Your task to perform on an android device: Go to internet settings Image 0: 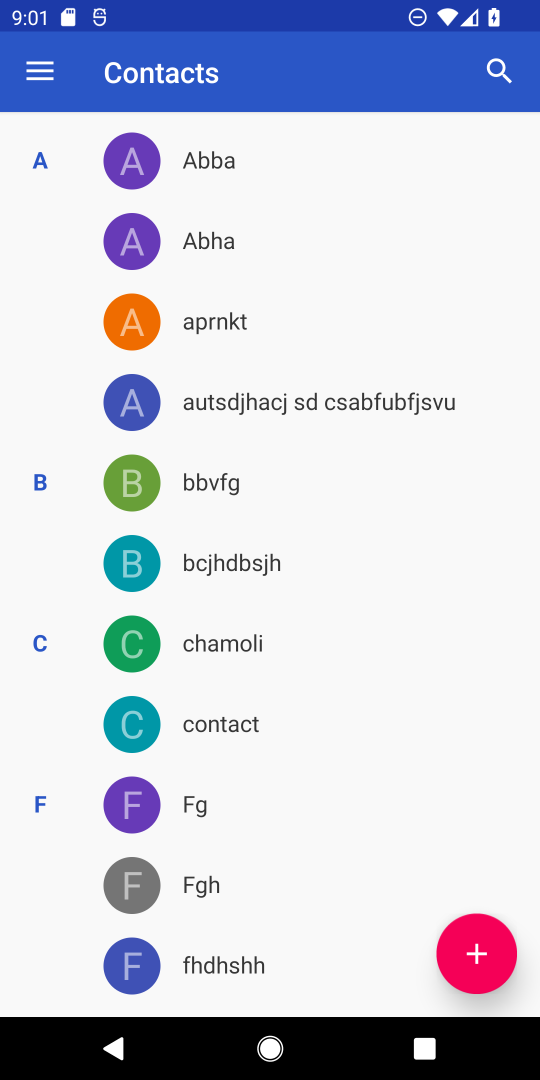
Step 0: press home button
Your task to perform on an android device: Go to internet settings Image 1: 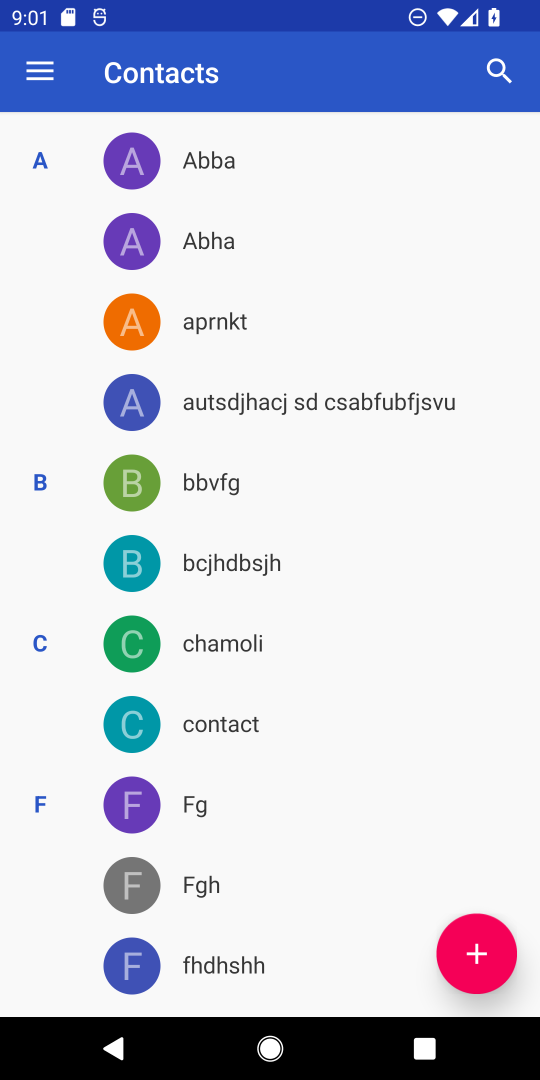
Step 1: press home button
Your task to perform on an android device: Go to internet settings Image 2: 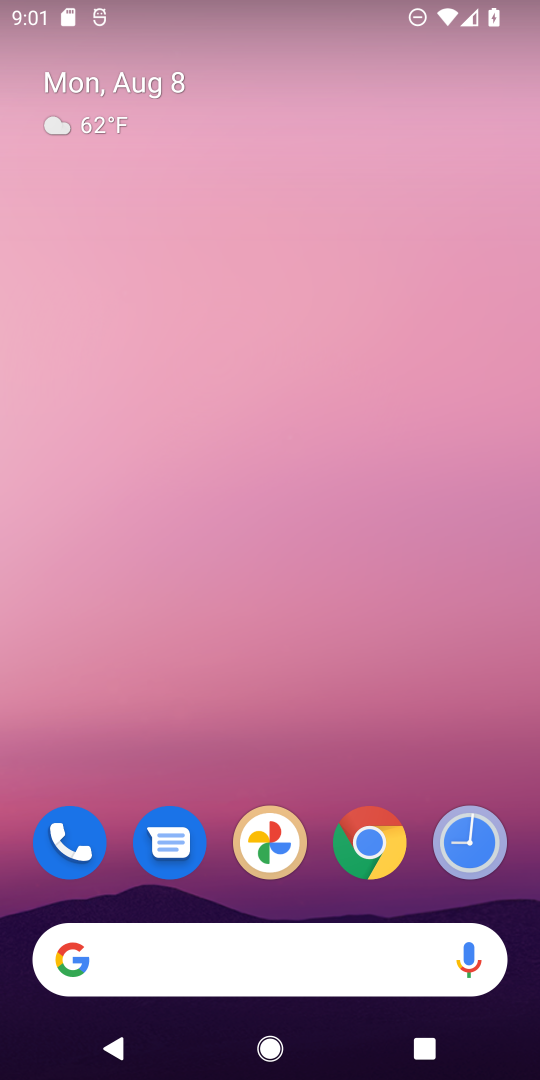
Step 2: drag from (288, 750) to (351, 0)
Your task to perform on an android device: Go to internet settings Image 3: 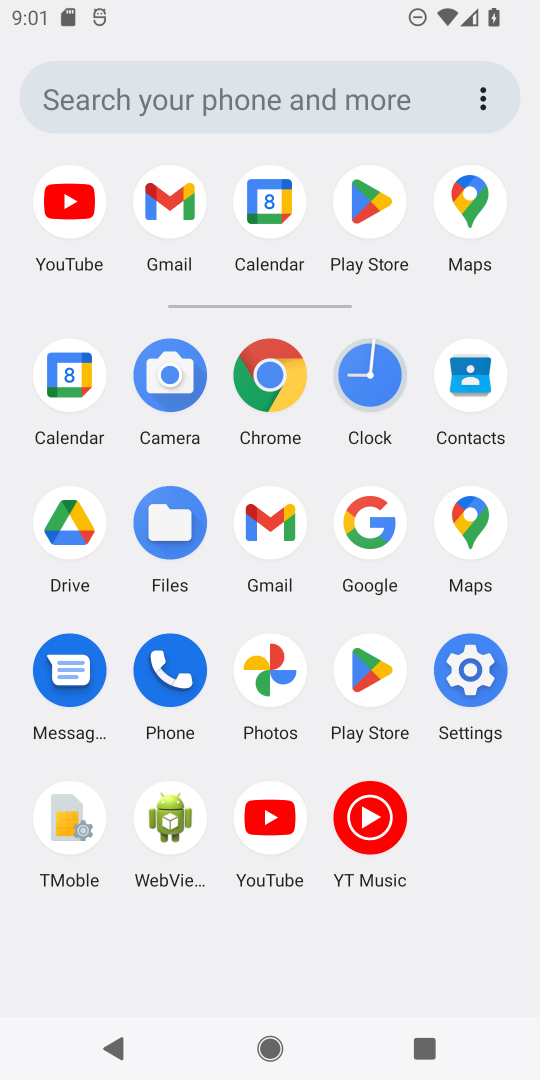
Step 3: click (464, 669)
Your task to perform on an android device: Go to internet settings Image 4: 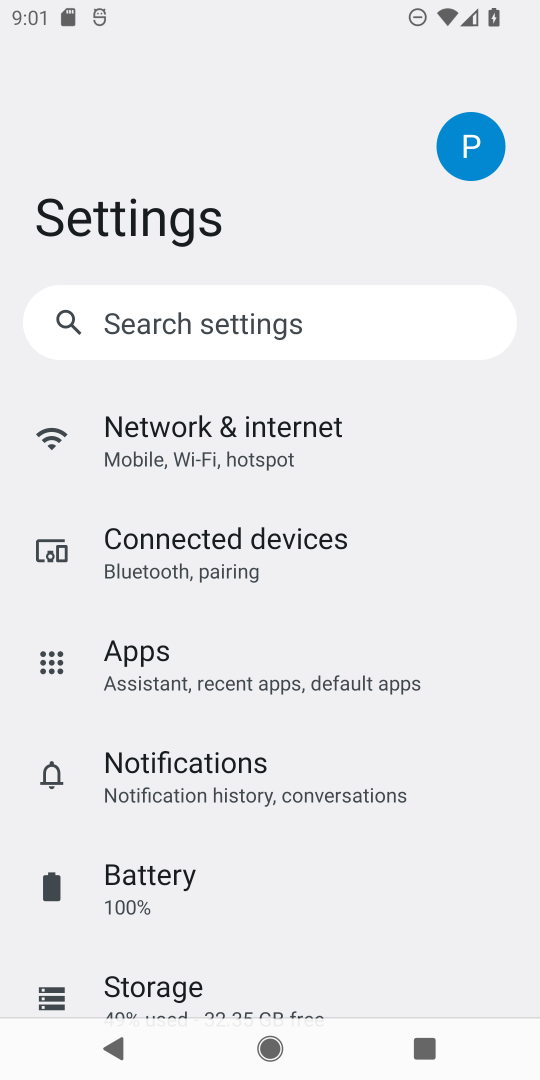
Step 4: click (284, 447)
Your task to perform on an android device: Go to internet settings Image 5: 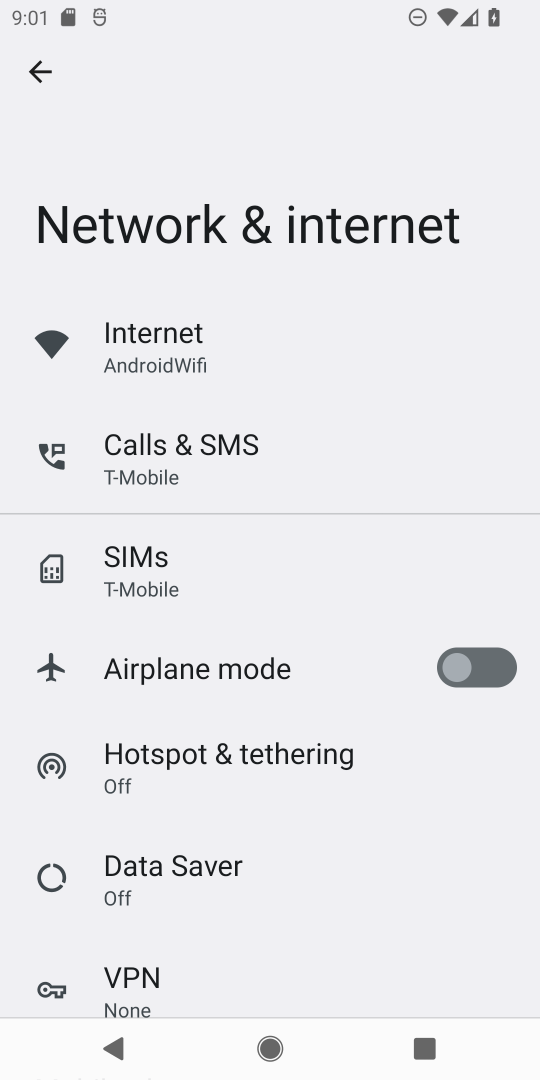
Step 5: click (198, 356)
Your task to perform on an android device: Go to internet settings Image 6: 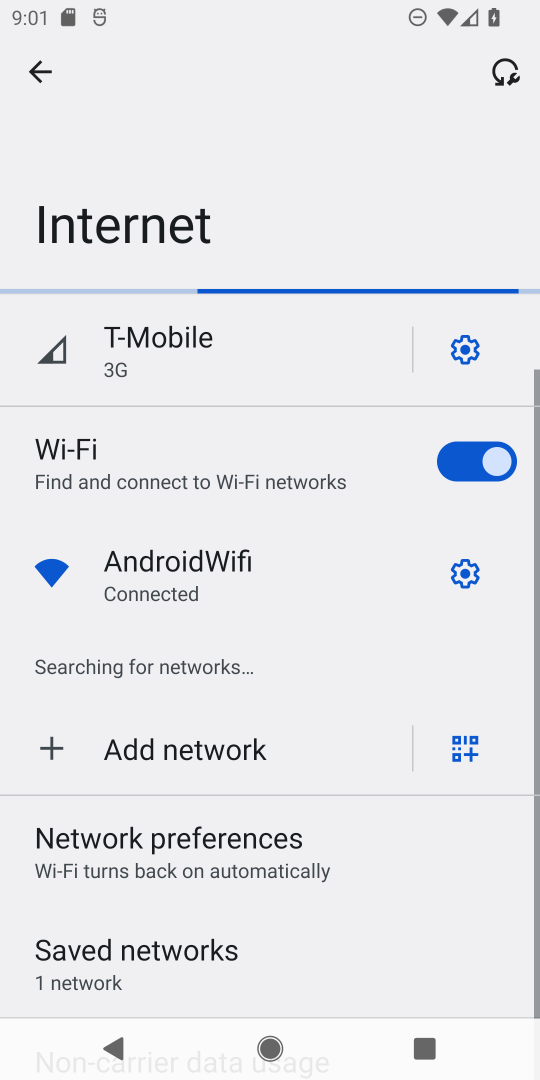
Step 6: task complete